Your task to perform on an android device: Do I have any events today? Image 0: 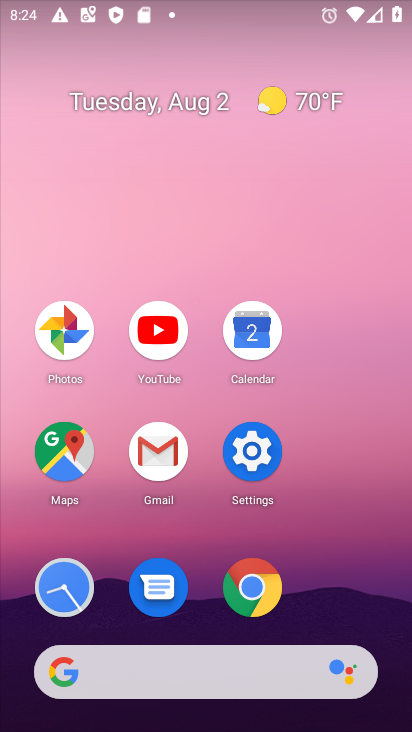
Step 0: click (252, 335)
Your task to perform on an android device: Do I have any events today? Image 1: 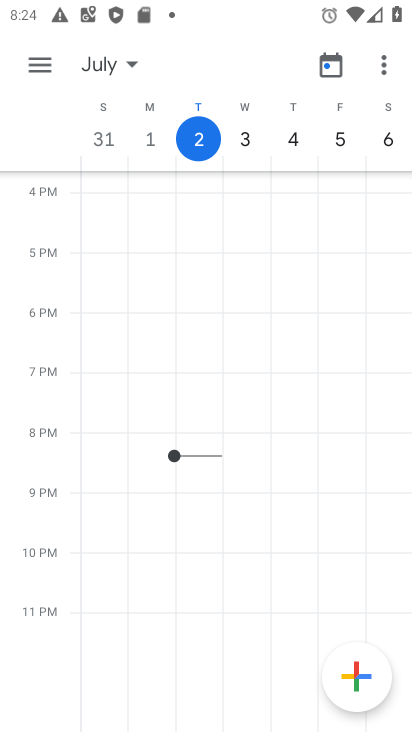
Step 1: click (132, 60)
Your task to perform on an android device: Do I have any events today? Image 2: 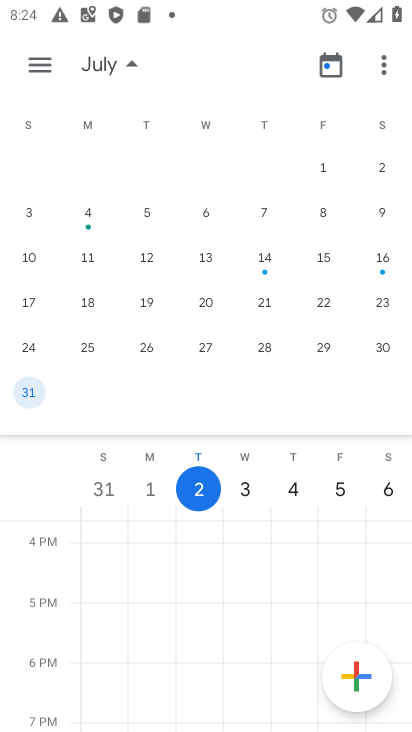
Step 2: drag from (357, 319) to (34, 227)
Your task to perform on an android device: Do I have any events today? Image 3: 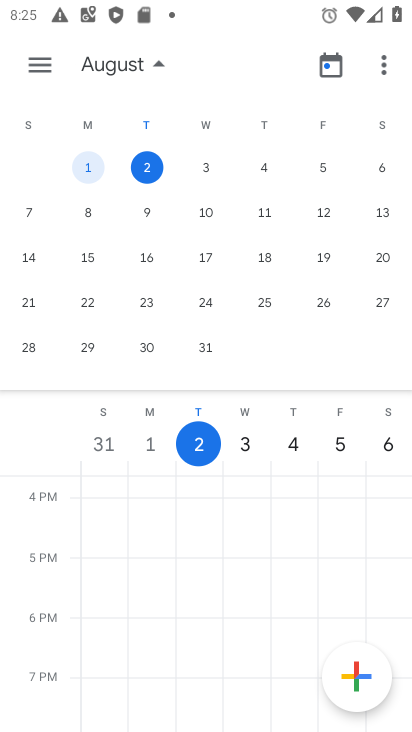
Step 3: click (147, 159)
Your task to perform on an android device: Do I have any events today? Image 4: 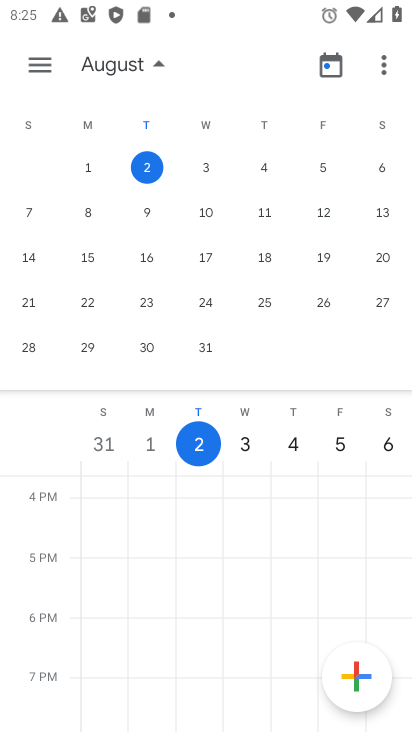
Step 4: click (197, 443)
Your task to perform on an android device: Do I have any events today? Image 5: 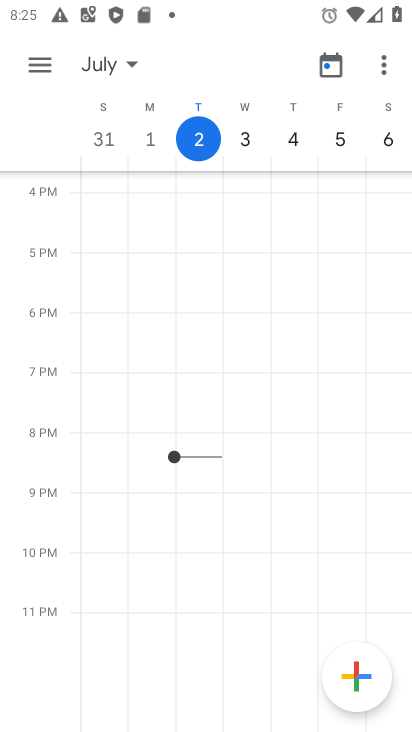
Step 5: click (194, 147)
Your task to perform on an android device: Do I have any events today? Image 6: 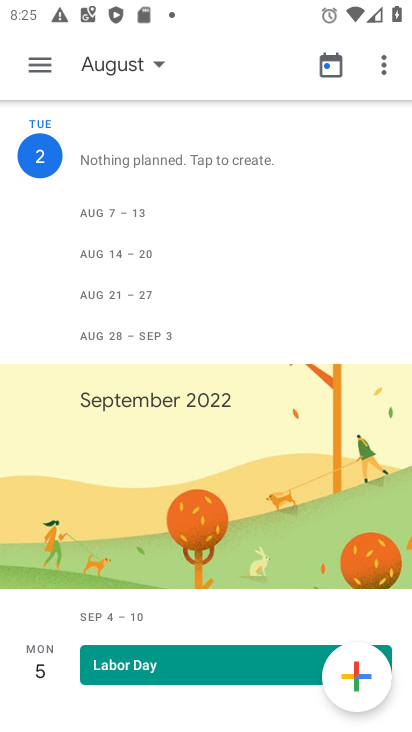
Step 6: click (33, 157)
Your task to perform on an android device: Do I have any events today? Image 7: 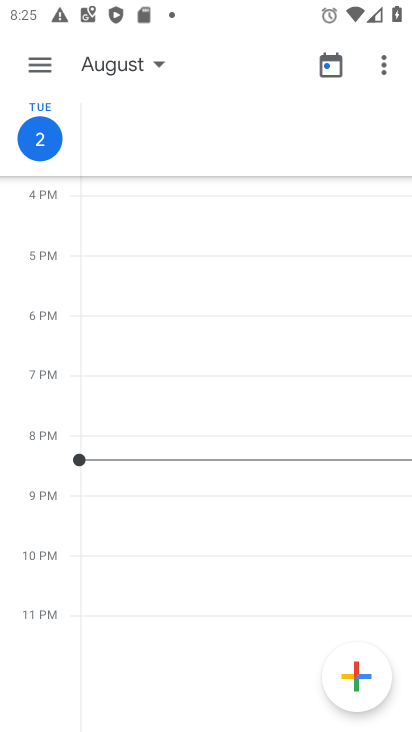
Step 7: task complete